Your task to perform on an android device: Go to eBay Image 0: 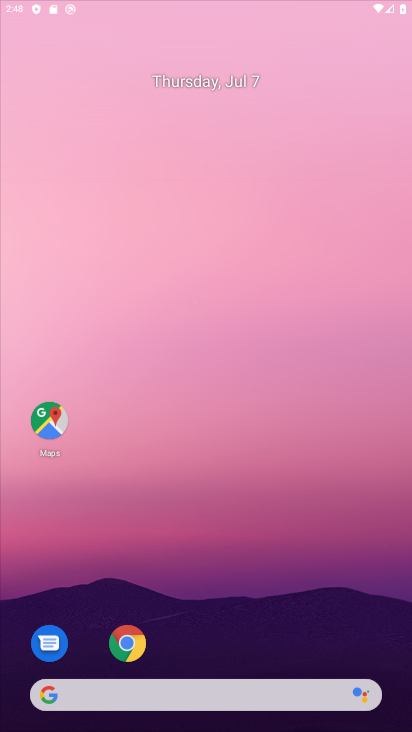
Step 0: click (20, 49)
Your task to perform on an android device: Go to eBay Image 1: 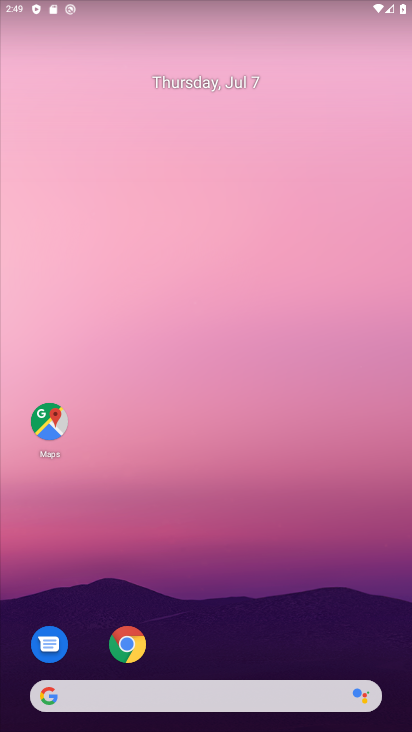
Step 1: click (105, 163)
Your task to perform on an android device: Go to eBay Image 2: 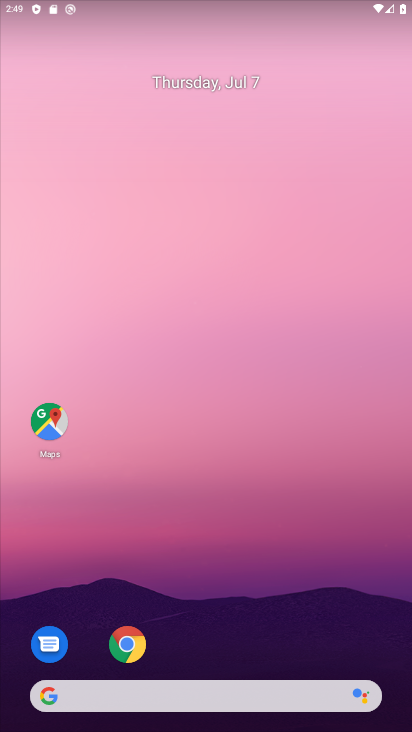
Step 2: click (141, 97)
Your task to perform on an android device: Go to eBay Image 3: 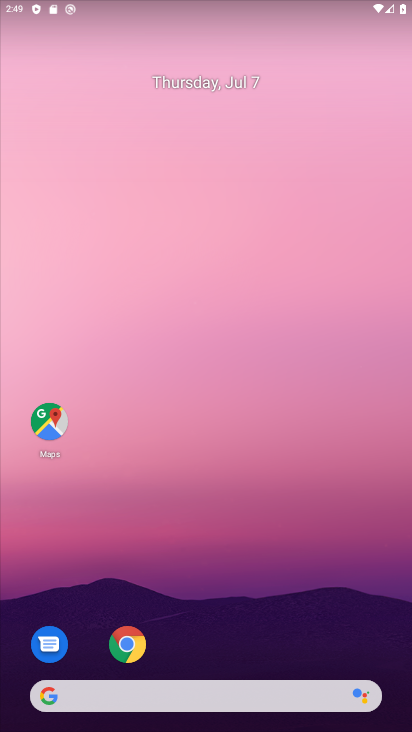
Step 3: click (112, 49)
Your task to perform on an android device: Go to eBay Image 4: 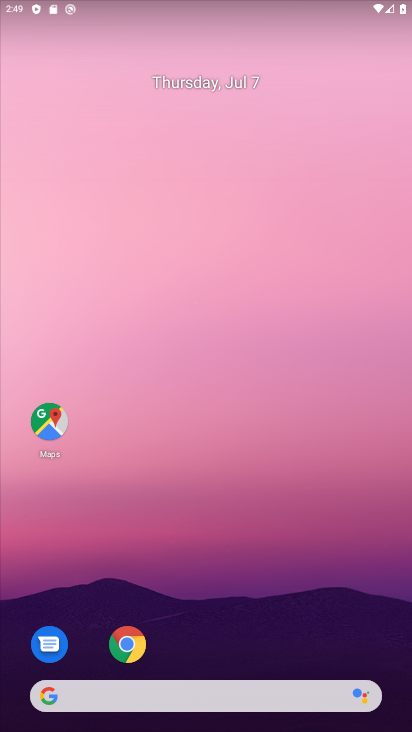
Step 4: drag from (263, 469) to (147, 112)
Your task to perform on an android device: Go to eBay Image 5: 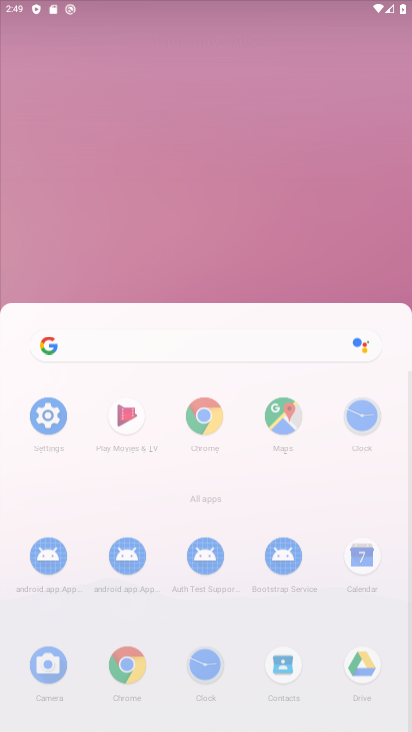
Step 5: drag from (298, 268) to (298, 114)
Your task to perform on an android device: Go to eBay Image 6: 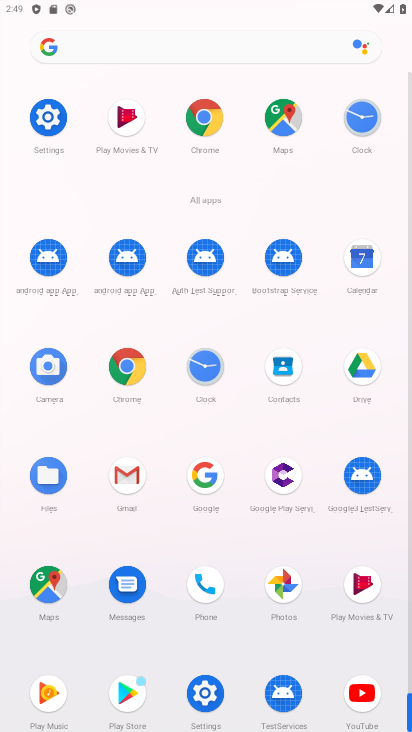
Step 6: click (128, 371)
Your task to perform on an android device: Go to eBay Image 7: 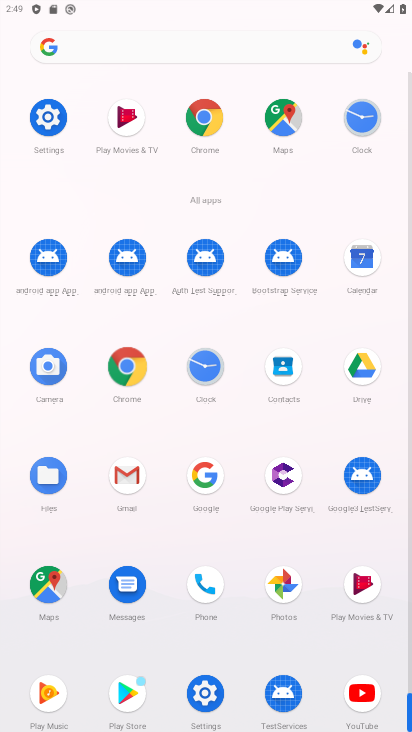
Step 7: click (126, 370)
Your task to perform on an android device: Go to eBay Image 8: 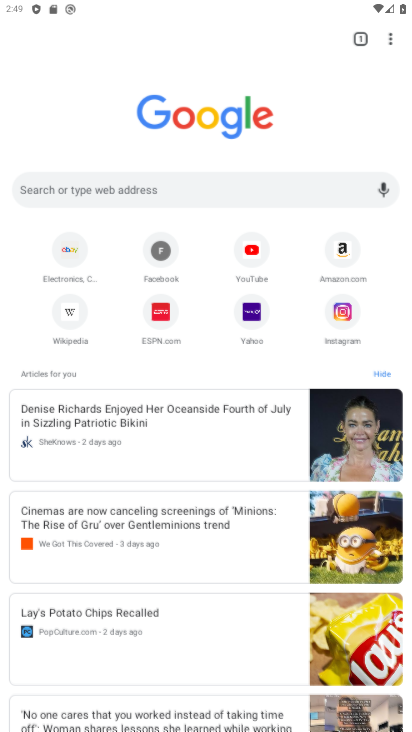
Step 8: click (129, 365)
Your task to perform on an android device: Go to eBay Image 9: 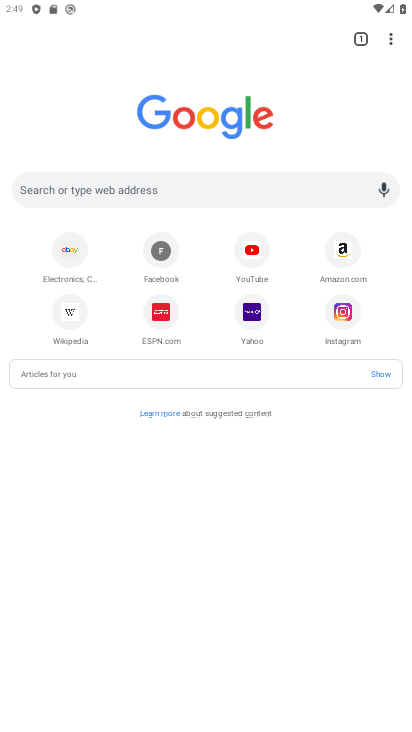
Step 9: click (72, 257)
Your task to perform on an android device: Go to eBay Image 10: 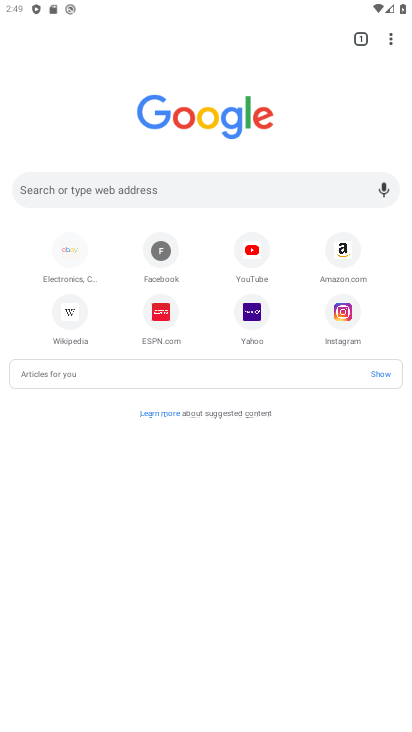
Step 10: click (71, 256)
Your task to perform on an android device: Go to eBay Image 11: 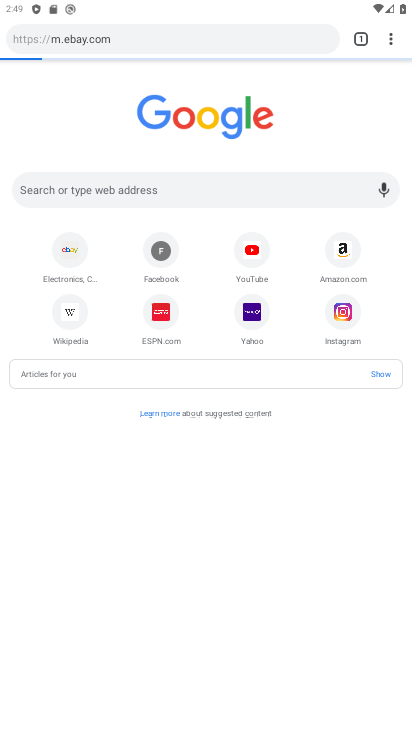
Step 11: click (71, 256)
Your task to perform on an android device: Go to eBay Image 12: 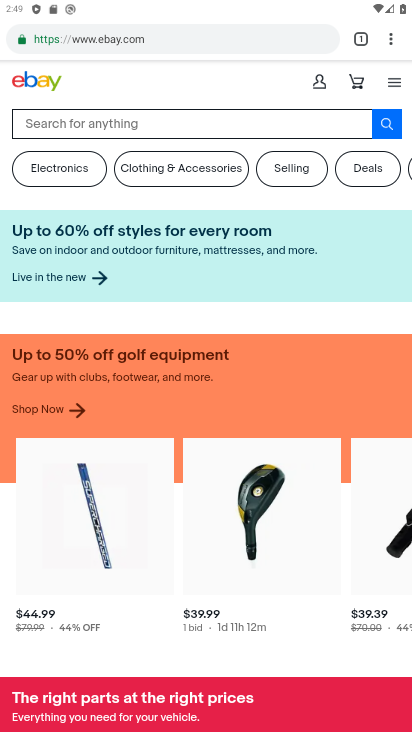
Step 12: task complete